Your task to perform on an android device: turn on javascript in the chrome app Image 0: 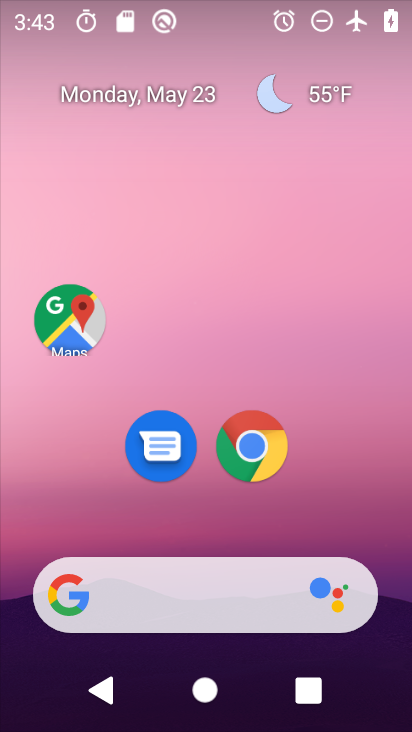
Step 0: click (276, 455)
Your task to perform on an android device: turn on javascript in the chrome app Image 1: 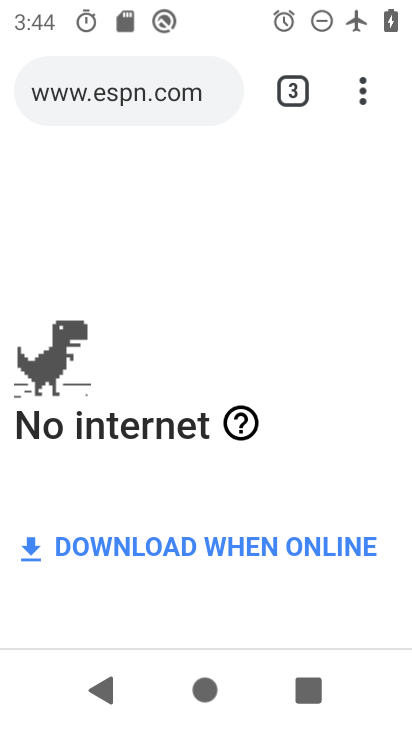
Step 1: click (360, 78)
Your task to perform on an android device: turn on javascript in the chrome app Image 2: 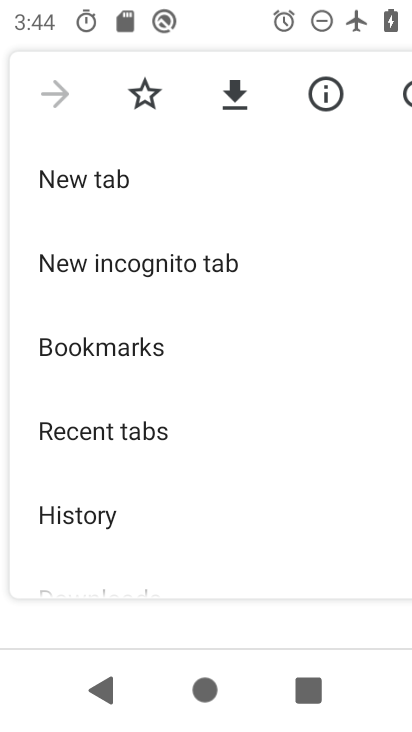
Step 2: drag from (172, 519) to (189, 208)
Your task to perform on an android device: turn on javascript in the chrome app Image 3: 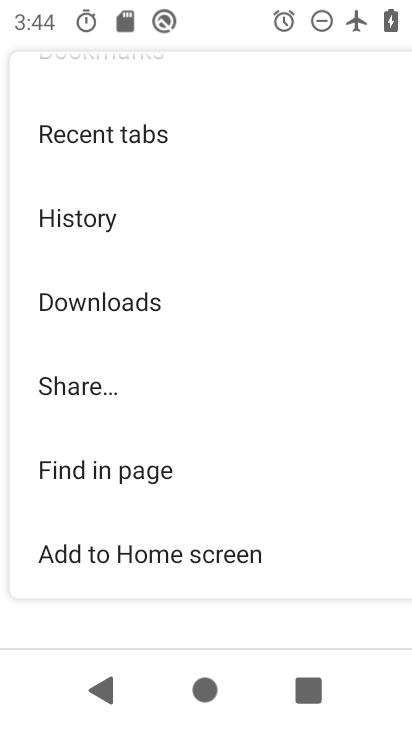
Step 3: drag from (215, 495) to (191, 275)
Your task to perform on an android device: turn on javascript in the chrome app Image 4: 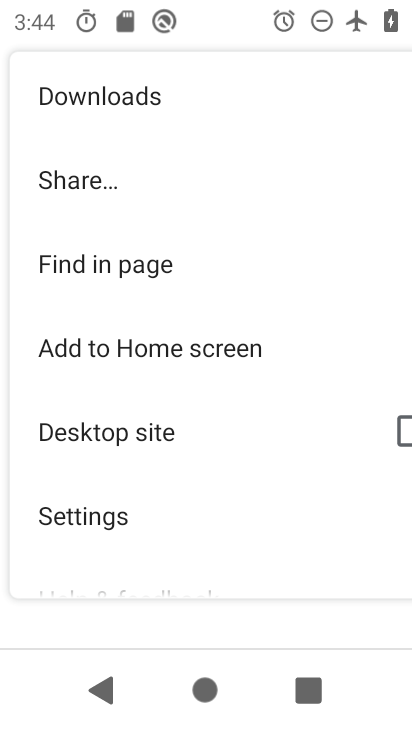
Step 4: click (183, 537)
Your task to perform on an android device: turn on javascript in the chrome app Image 5: 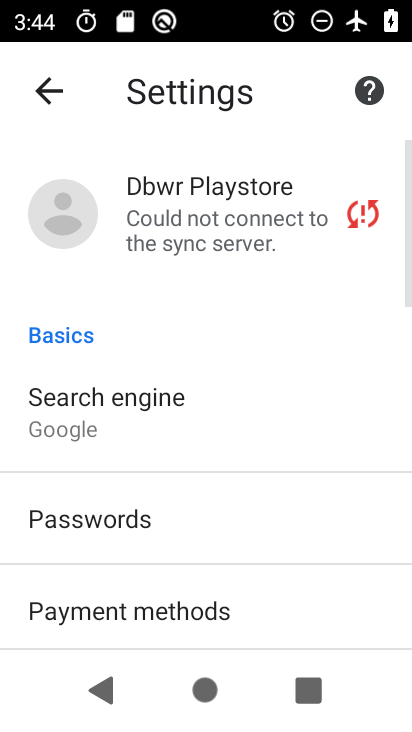
Step 5: click (119, 532)
Your task to perform on an android device: turn on javascript in the chrome app Image 6: 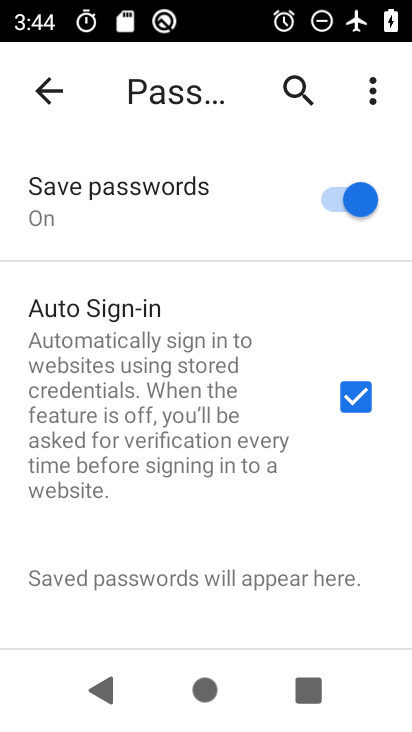
Step 6: click (47, 85)
Your task to perform on an android device: turn on javascript in the chrome app Image 7: 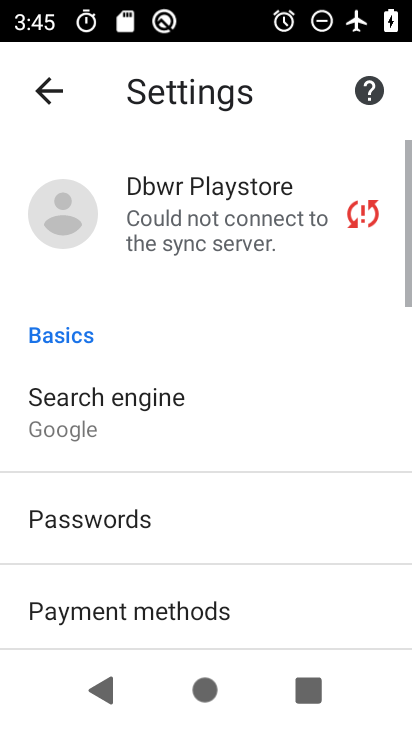
Step 7: drag from (202, 527) to (185, 203)
Your task to perform on an android device: turn on javascript in the chrome app Image 8: 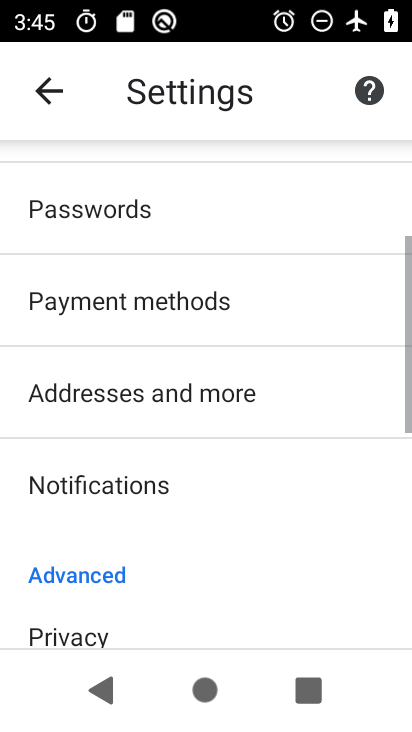
Step 8: drag from (208, 468) to (185, 211)
Your task to perform on an android device: turn on javascript in the chrome app Image 9: 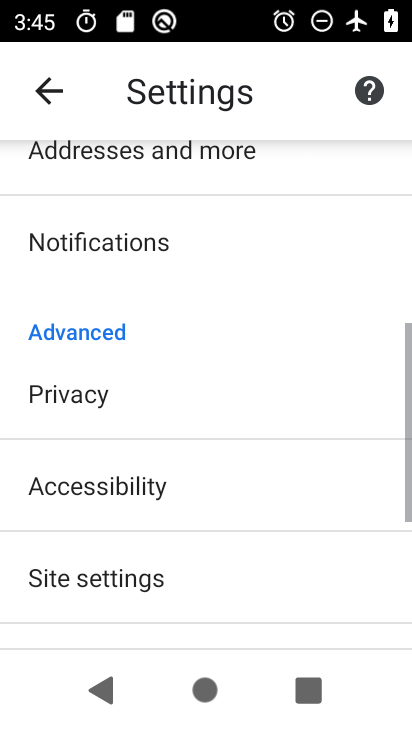
Step 9: drag from (205, 431) to (202, 273)
Your task to perform on an android device: turn on javascript in the chrome app Image 10: 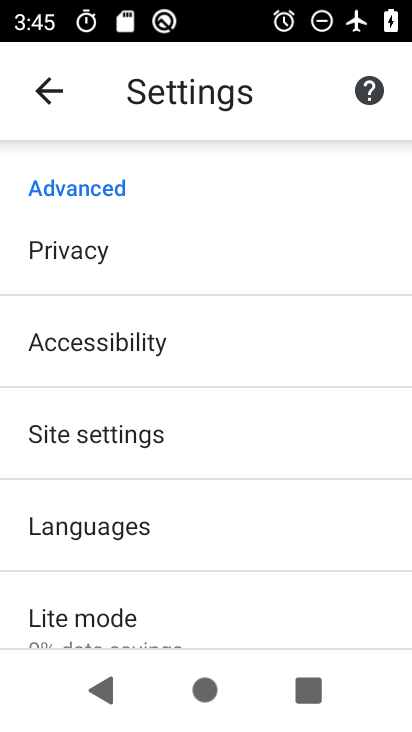
Step 10: drag from (202, 583) to (208, 283)
Your task to perform on an android device: turn on javascript in the chrome app Image 11: 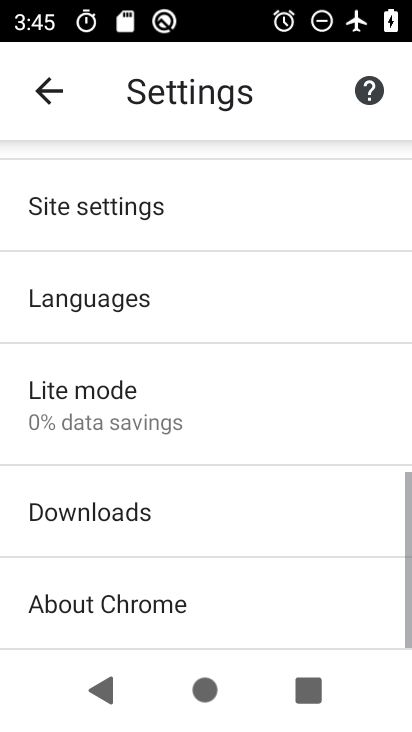
Step 11: drag from (211, 517) to (187, 345)
Your task to perform on an android device: turn on javascript in the chrome app Image 12: 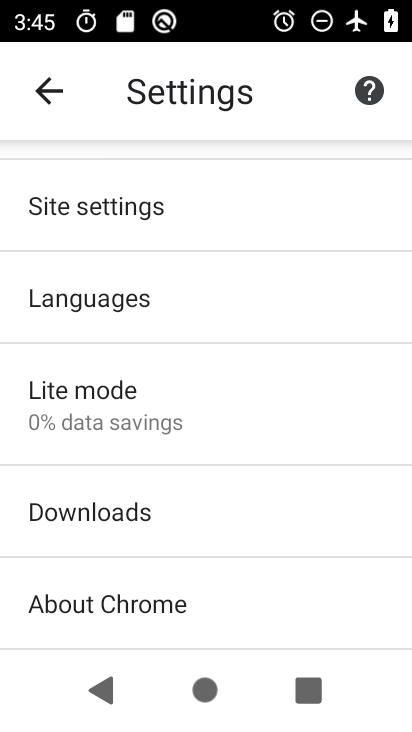
Step 12: click (142, 204)
Your task to perform on an android device: turn on javascript in the chrome app Image 13: 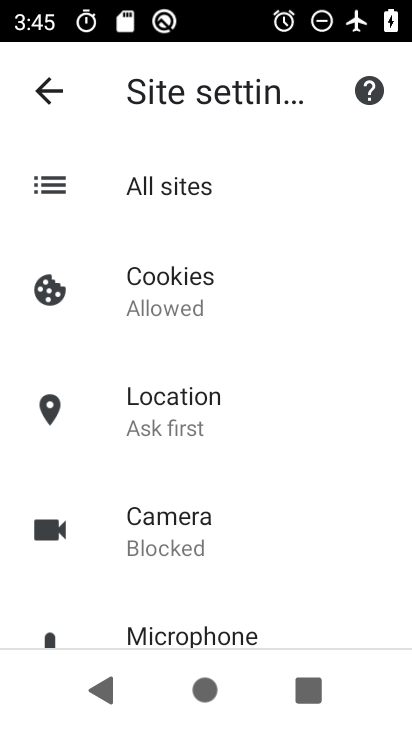
Step 13: drag from (245, 539) to (216, 324)
Your task to perform on an android device: turn on javascript in the chrome app Image 14: 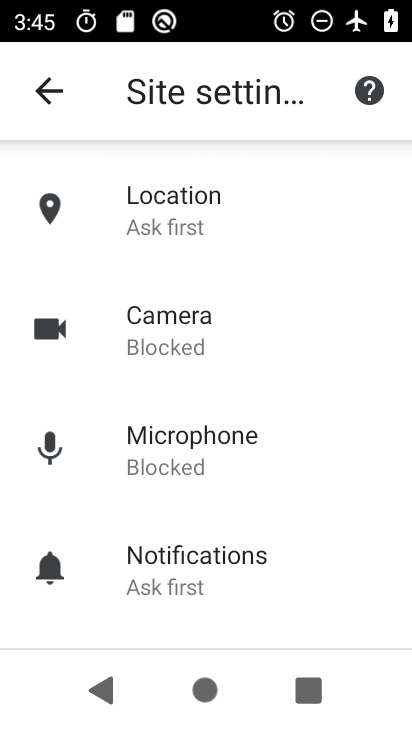
Step 14: drag from (218, 473) to (197, 246)
Your task to perform on an android device: turn on javascript in the chrome app Image 15: 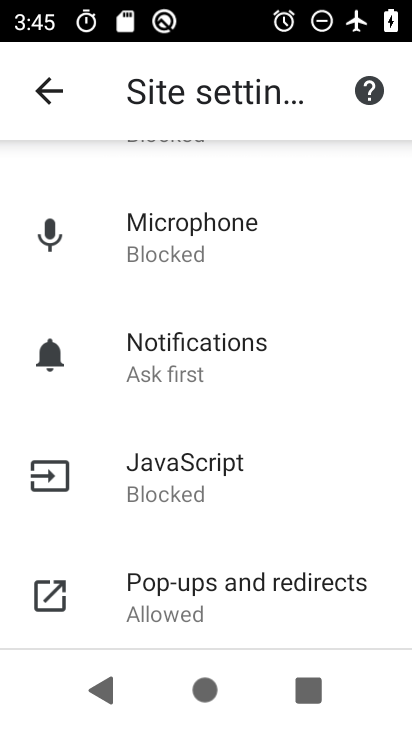
Step 15: click (208, 447)
Your task to perform on an android device: turn on javascript in the chrome app Image 16: 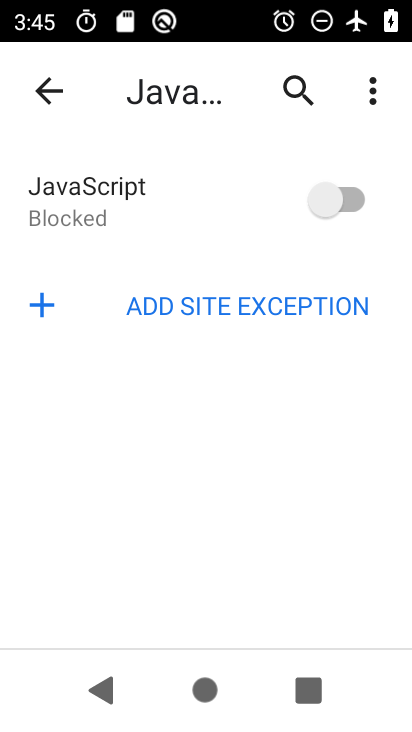
Step 16: click (355, 207)
Your task to perform on an android device: turn on javascript in the chrome app Image 17: 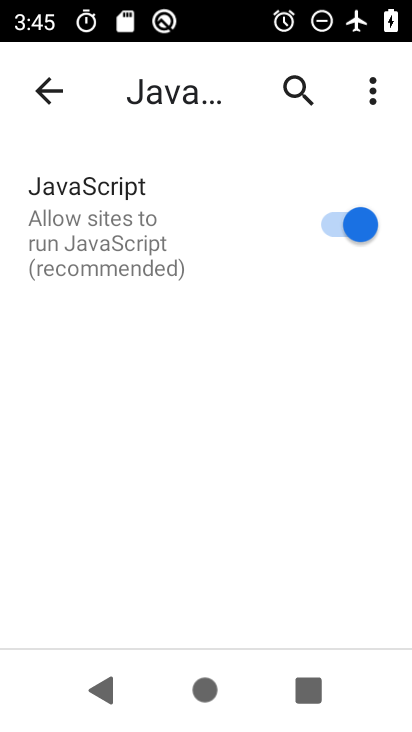
Step 17: task complete